Your task to perform on an android device: Open the stopwatch Image 0: 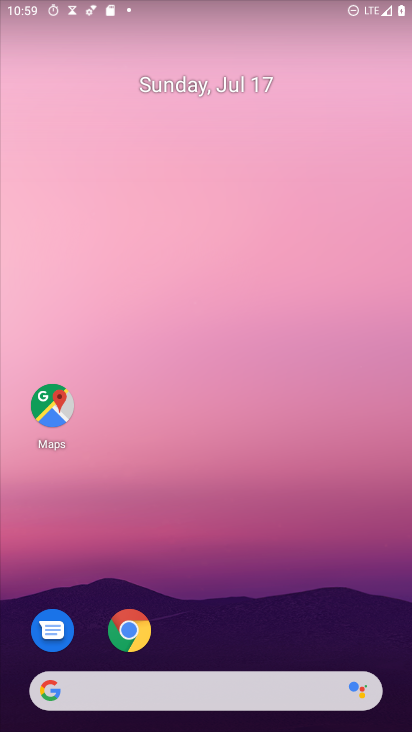
Step 0: drag from (137, 274) to (162, 87)
Your task to perform on an android device: Open the stopwatch Image 1: 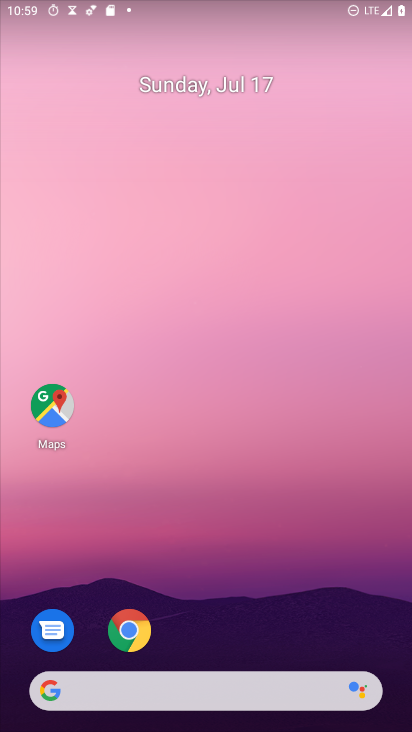
Step 1: drag from (264, 679) to (143, 6)
Your task to perform on an android device: Open the stopwatch Image 2: 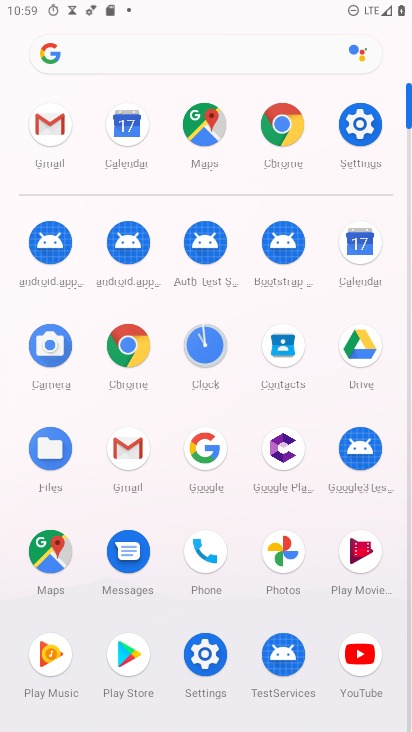
Step 2: click (208, 354)
Your task to perform on an android device: Open the stopwatch Image 3: 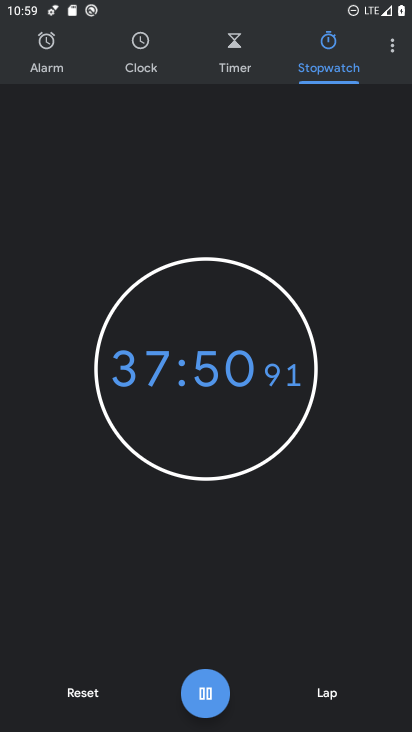
Step 3: task complete